Your task to perform on an android device: change notifications settings Image 0: 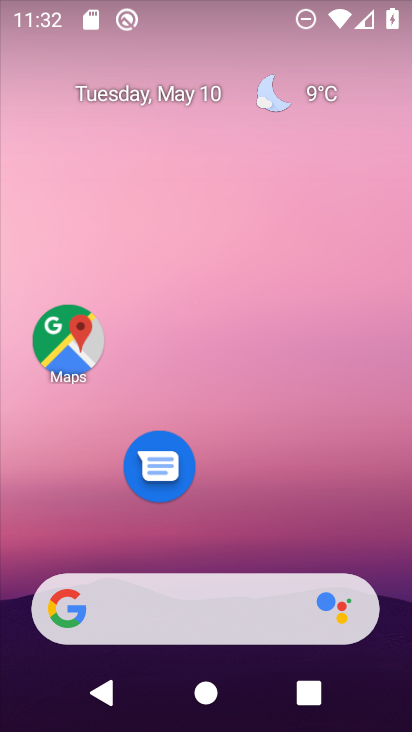
Step 0: drag from (272, 526) to (307, 42)
Your task to perform on an android device: change notifications settings Image 1: 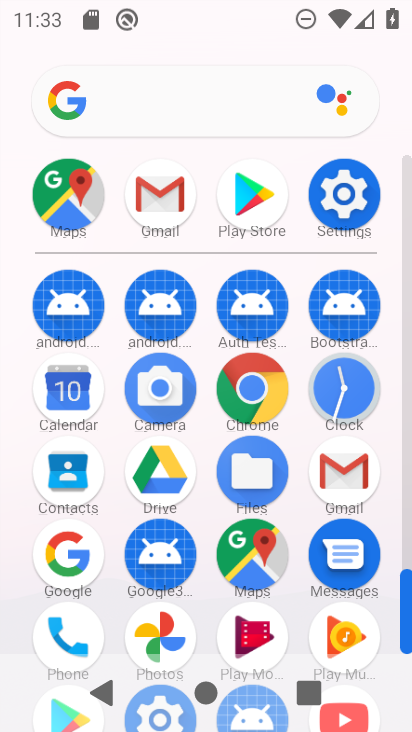
Step 1: click (353, 192)
Your task to perform on an android device: change notifications settings Image 2: 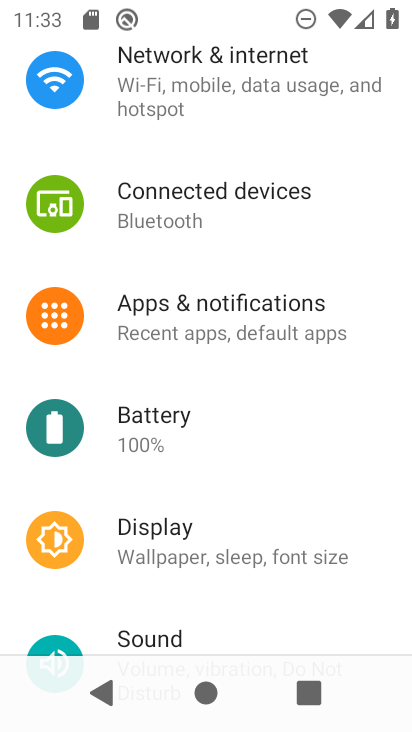
Step 2: click (223, 313)
Your task to perform on an android device: change notifications settings Image 3: 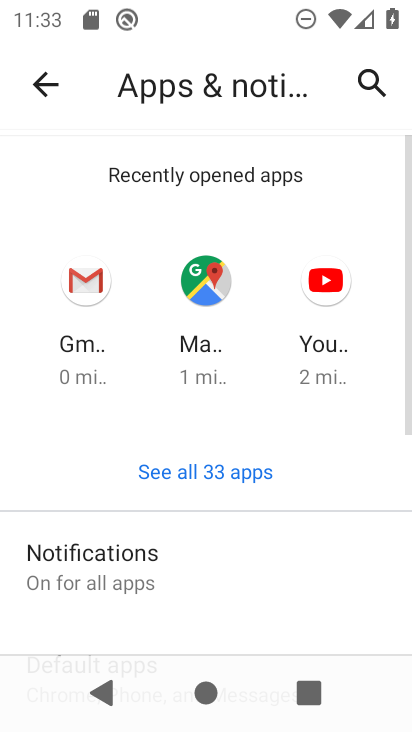
Step 3: click (205, 564)
Your task to perform on an android device: change notifications settings Image 4: 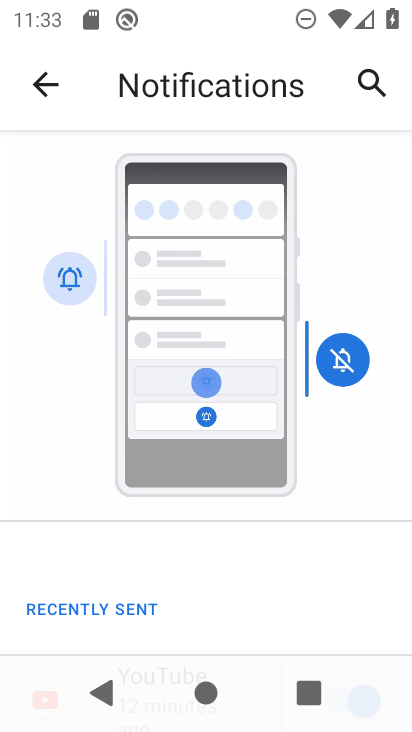
Step 4: drag from (156, 599) to (166, 256)
Your task to perform on an android device: change notifications settings Image 5: 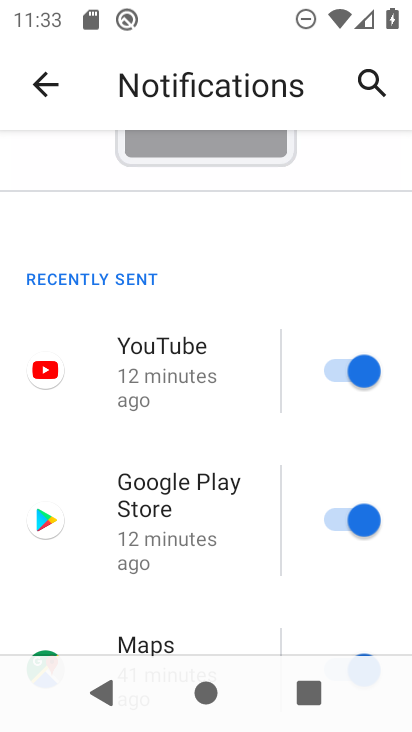
Step 5: drag from (176, 519) to (144, 276)
Your task to perform on an android device: change notifications settings Image 6: 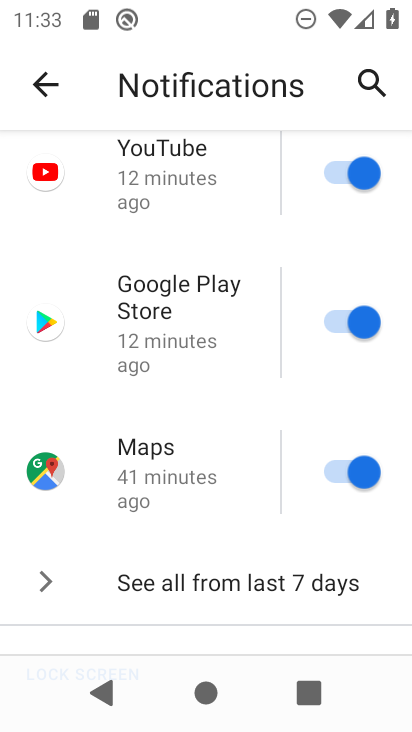
Step 6: drag from (165, 426) to (164, 296)
Your task to perform on an android device: change notifications settings Image 7: 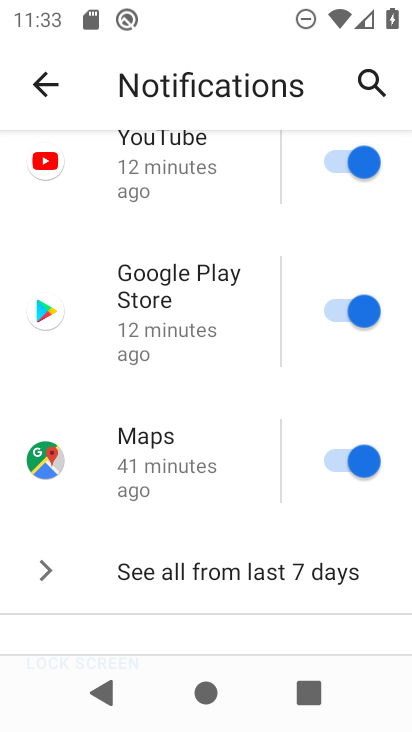
Step 7: drag from (210, 589) to (194, 337)
Your task to perform on an android device: change notifications settings Image 8: 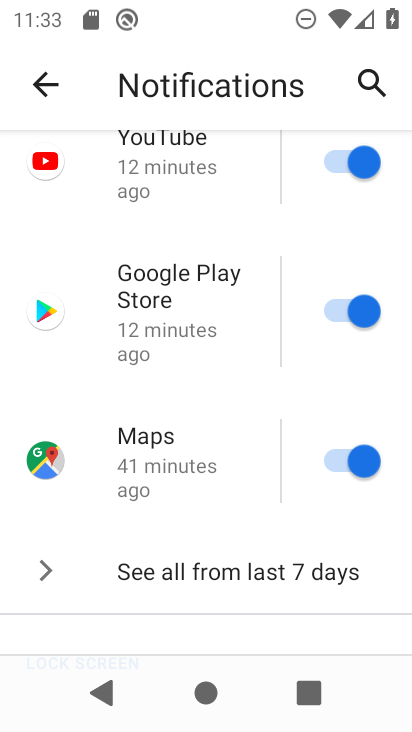
Step 8: drag from (175, 597) to (154, 278)
Your task to perform on an android device: change notifications settings Image 9: 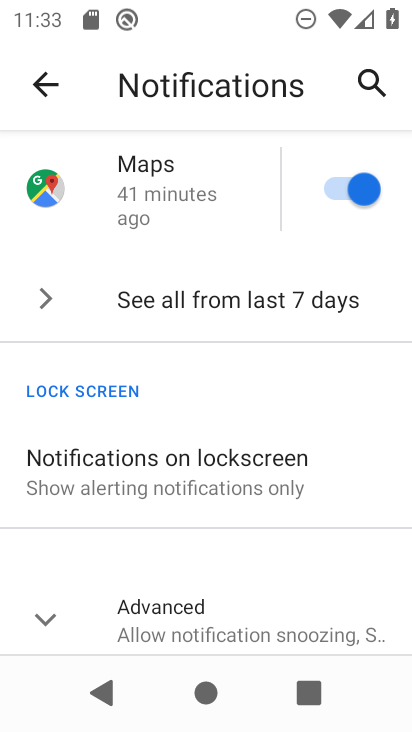
Step 9: drag from (162, 580) to (144, 274)
Your task to perform on an android device: change notifications settings Image 10: 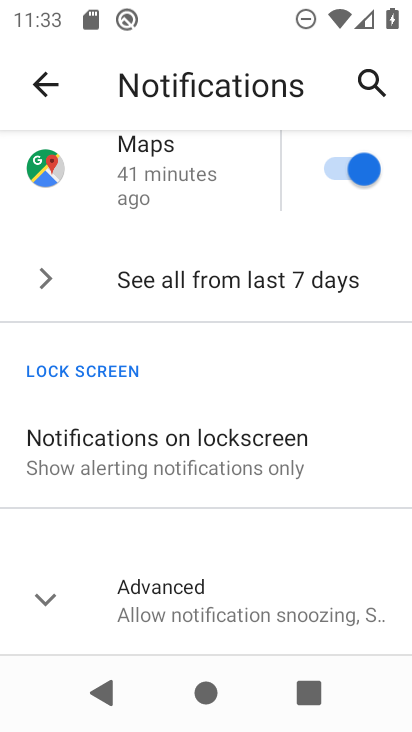
Step 10: click (189, 592)
Your task to perform on an android device: change notifications settings Image 11: 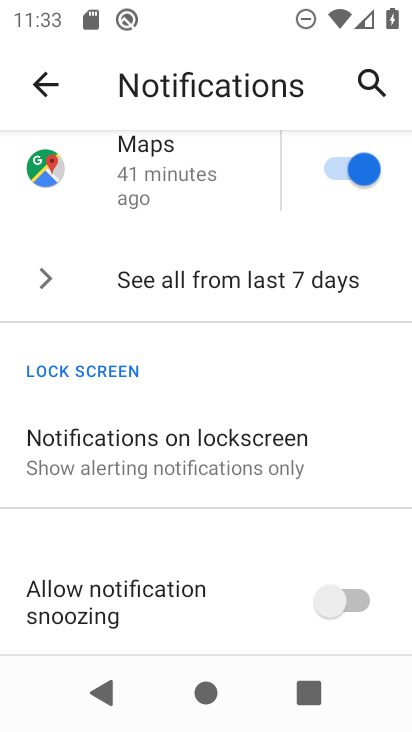
Step 11: drag from (229, 571) to (240, 182)
Your task to perform on an android device: change notifications settings Image 12: 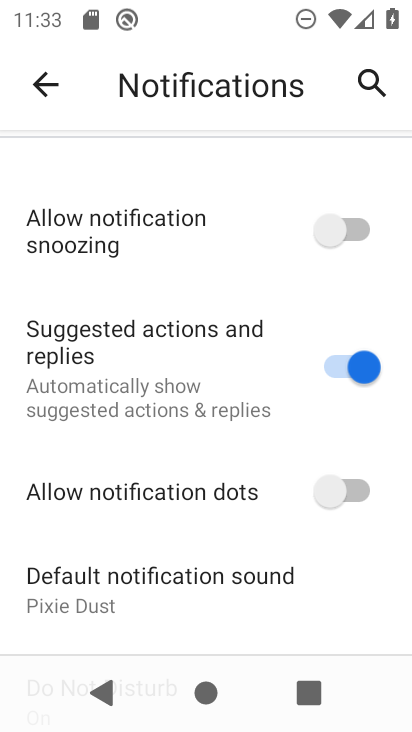
Step 12: click (338, 499)
Your task to perform on an android device: change notifications settings Image 13: 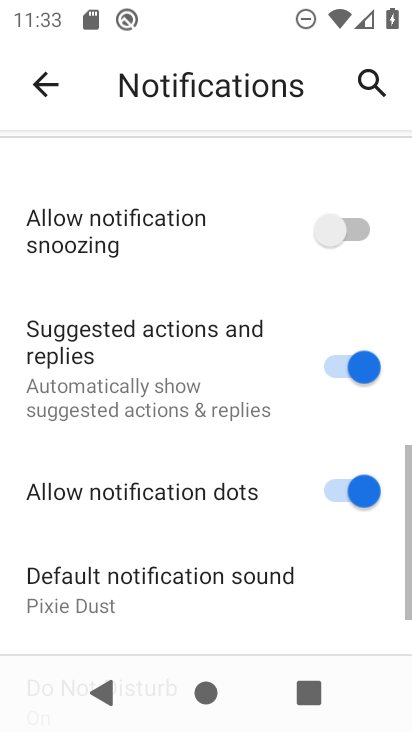
Step 13: click (359, 363)
Your task to perform on an android device: change notifications settings Image 14: 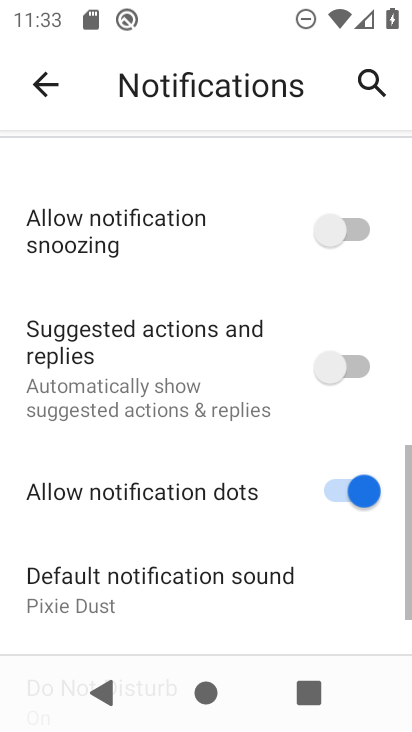
Step 14: click (358, 234)
Your task to perform on an android device: change notifications settings Image 15: 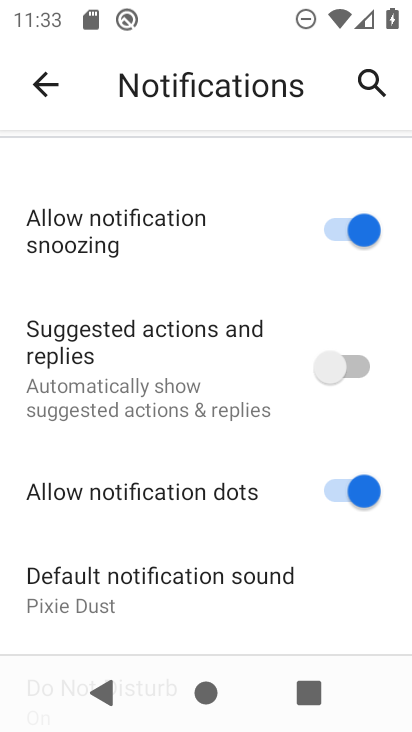
Step 15: drag from (272, 161) to (322, 639)
Your task to perform on an android device: change notifications settings Image 16: 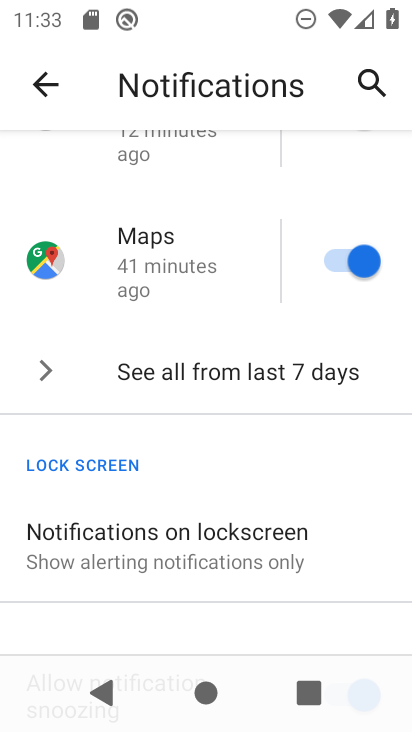
Step 16: click (240, 503)
Your task to perform on an android device: change notifications settings Image 17: 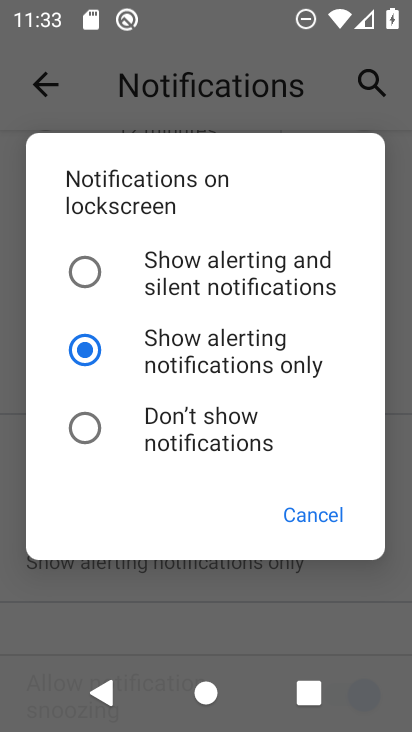
Step 17: click (179, 289)
Your task to perform on an android device: change notifications settings Image 18: 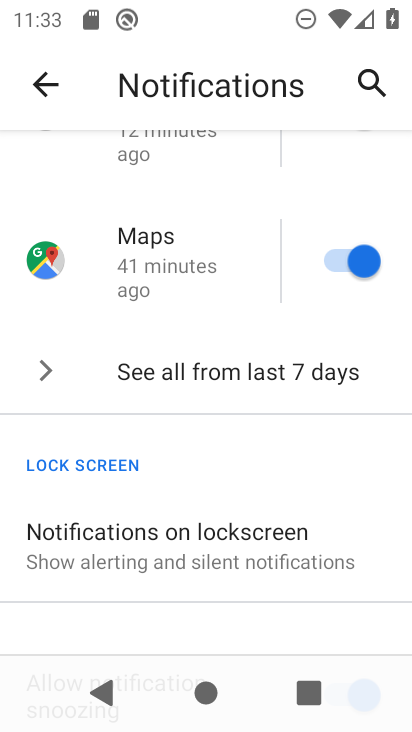
Step 18: click (226, 380)
Your task to perform on an android device: change notifications settings Image 19: 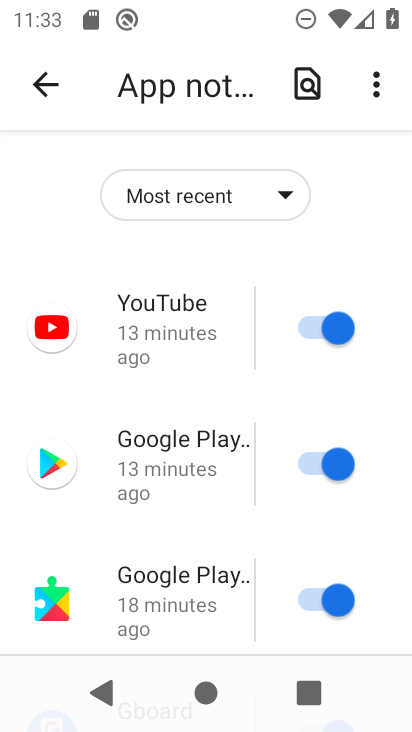
Step 19: click (298, 326)
Your task to perform on an android device: change notifications settings Image 20: 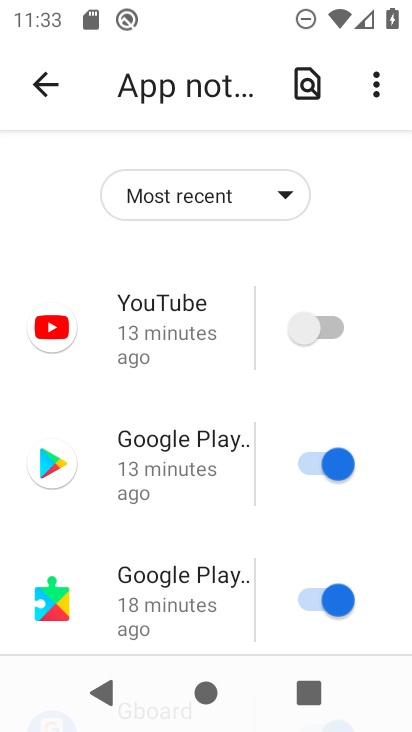
Step 20: click (330, 459)
Your task to perform on an android device: change notifications settings Image 21: 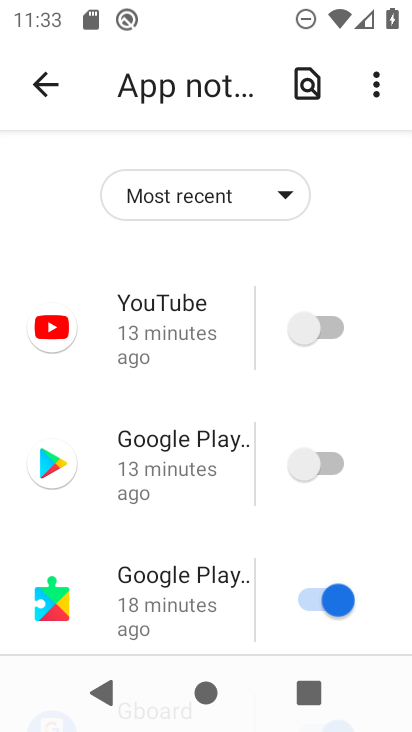
Step 21: click (309, 595)
Your task to perform on an android device: change notifications settings Image 22: 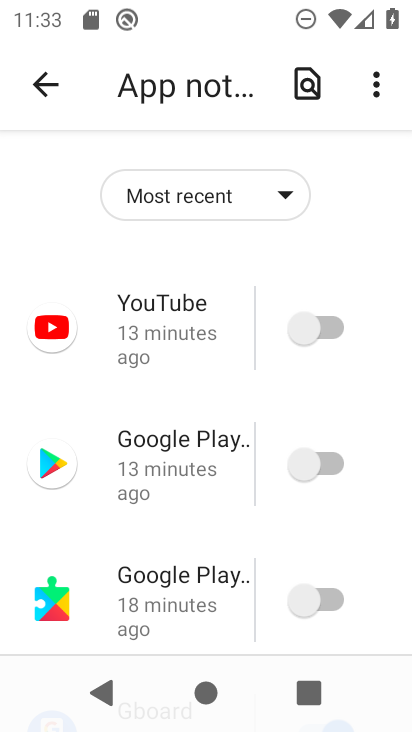
Step 22: drag from (178, 567) to (201, 229)
Your task to perform on an android device: change notifications settings Image 23: 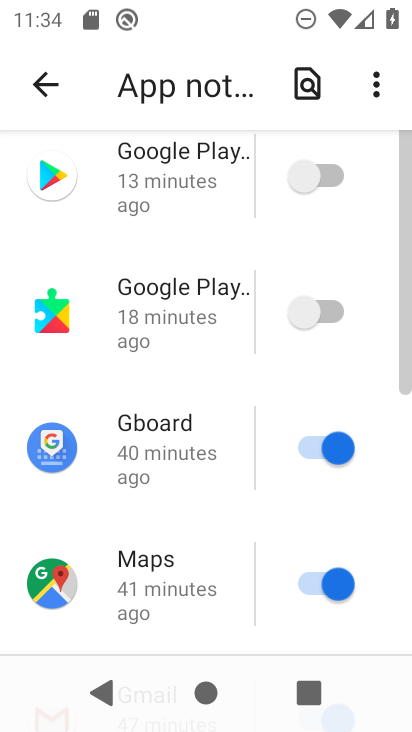
Step 23: click (317, 453)
Your task to perform on an android device: change notifications settings Image 24: 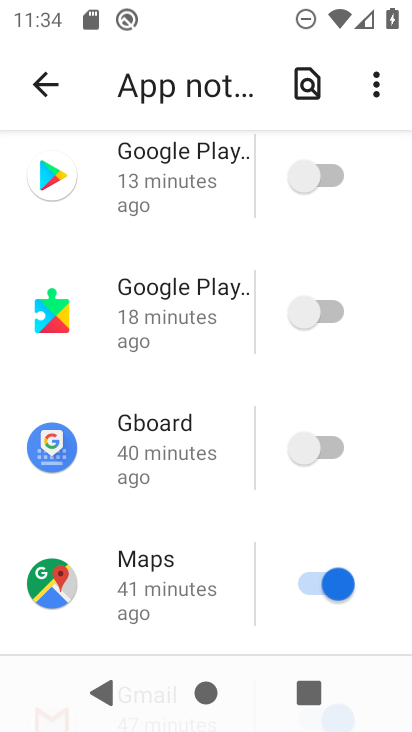
Step 24: click (333, 575)
Your task to perform on an android device: change notifications settings Image 25: 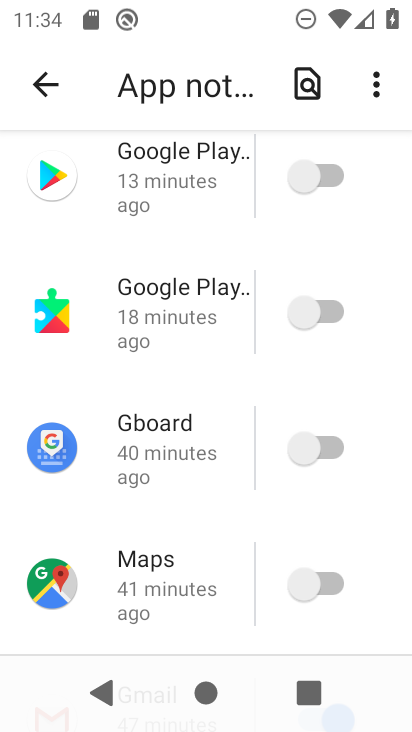
Step 25: drag from (157, 599) to (128, 332)
Your task to perform on an android device: change notifications settings Image 26: 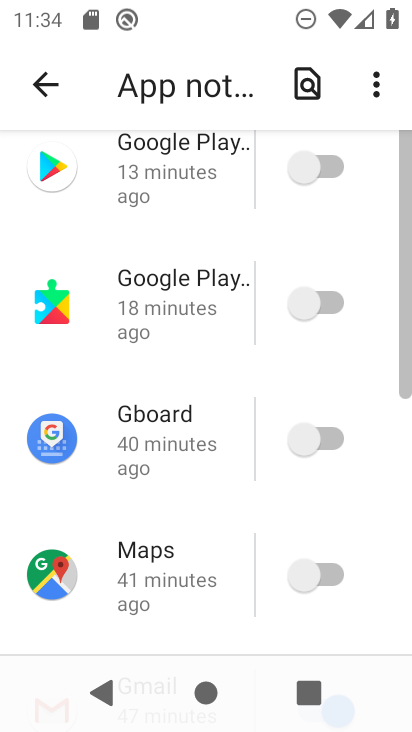
Step 26: drag from (222, 475) to (231, 329)
Your task to perform on an android device: change notifications settings Image 27: 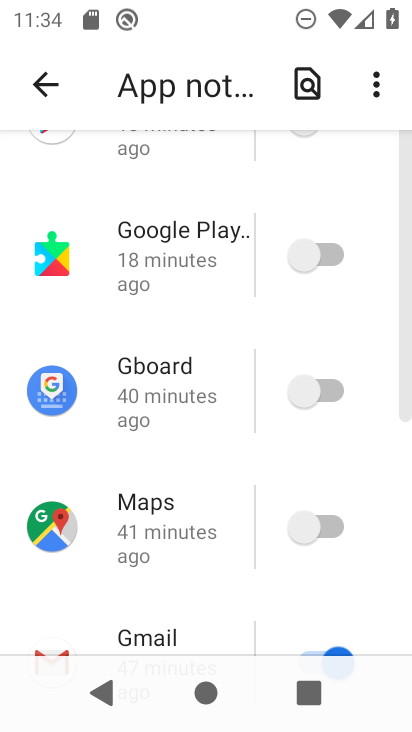
Step 27: drag from (222, 628) to (230, 316)
Your task to perform on an android device: change notifications settings Image 28: 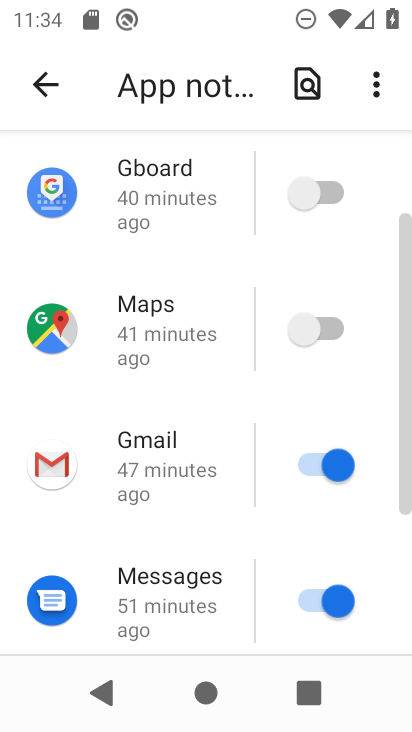
Step 28: click (301, 468)
Your task to perform on an android device: change notifications settings Image 29: 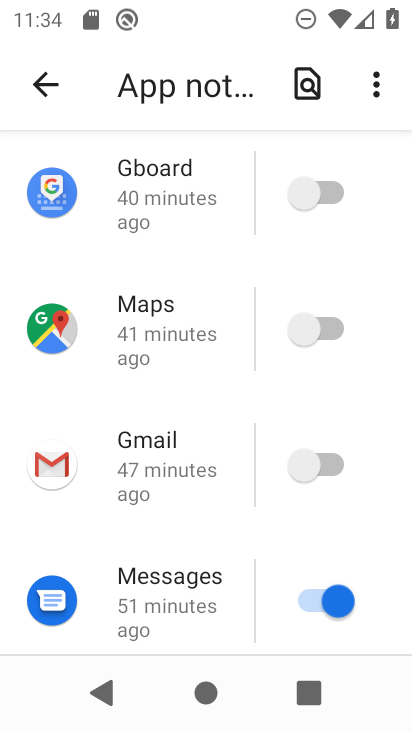
Step 29: click (340, 606)
Your task to perform on an android device: change notifications settings Image 30: 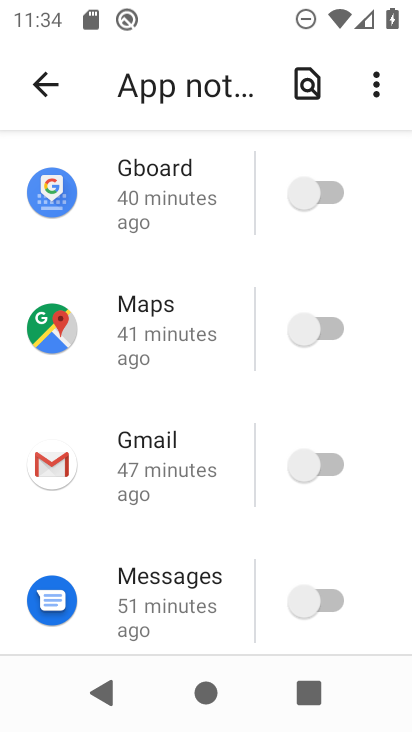
Step 30: drag from (182, 600) to (158, 334)
Your task to perform on an android device: change notifications settings Image 31: 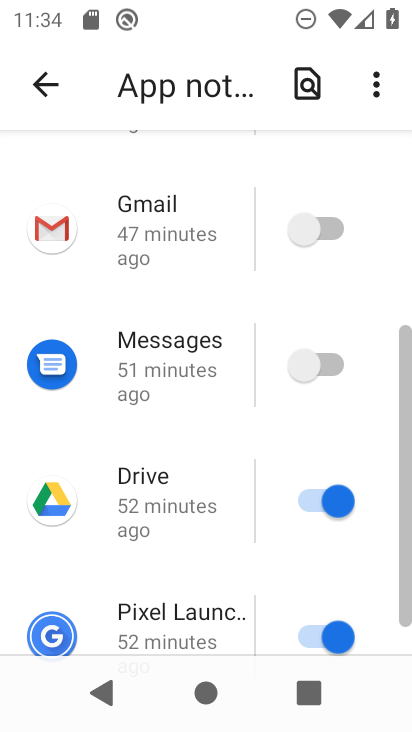
Step 31: drag from (202, 579) to (190, 298)
Your task to perform on an android device: change notifications settings Image 32: 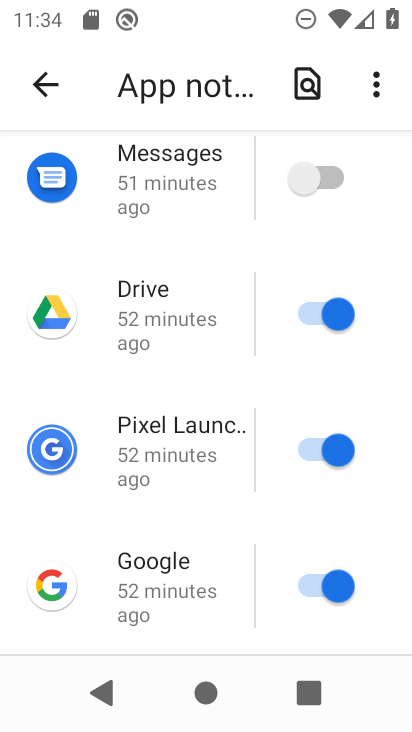
Step 32: click (322, 431)
Your task to perform on an android device: change notifications settings Image 33: 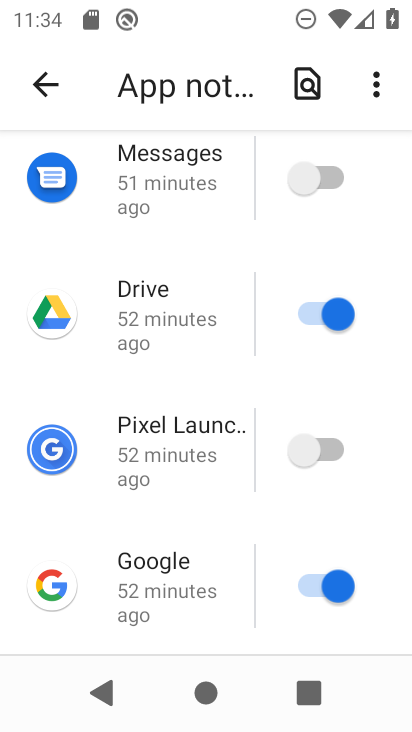
Step 33: click (349, 585)
Your task to perform on an android device: change notifications settings Image 34: 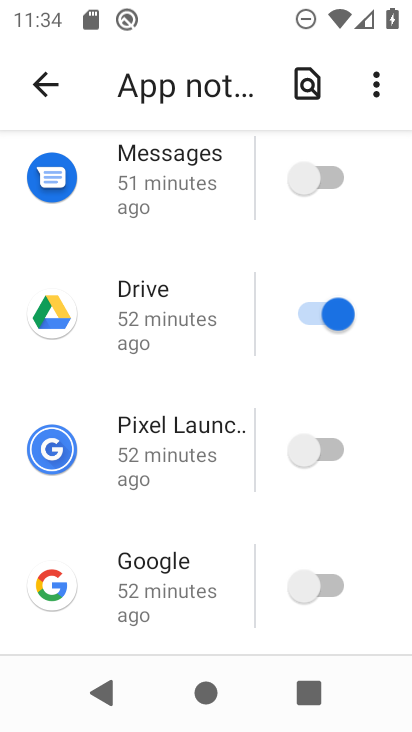
Step 34: click (313, 303)
Your task to perform on an android device: change notifications settings Image 35: 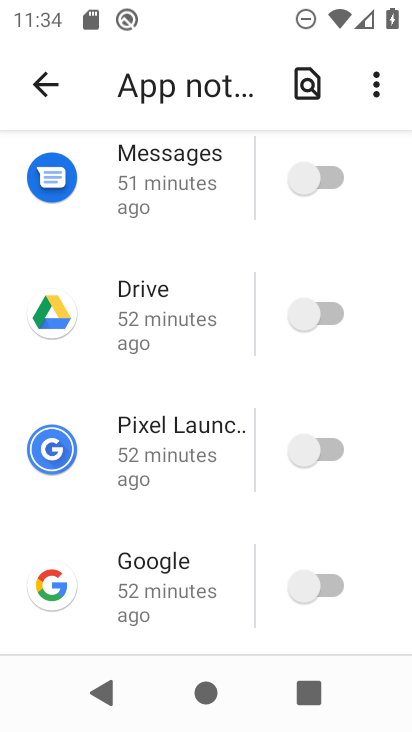
Step 35: task complete